Your task to perform on an android device: Open calendar and show me the first week of next month Image 0: 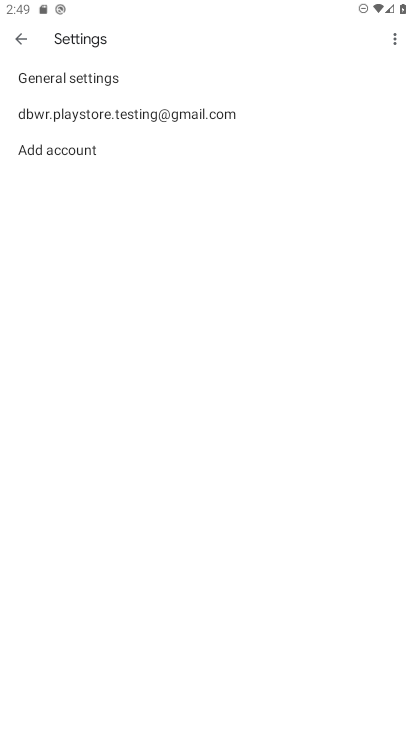
Step 0: press home button
Your task to perform on an android device: Open calendar and show me the first week of next month Image 1: 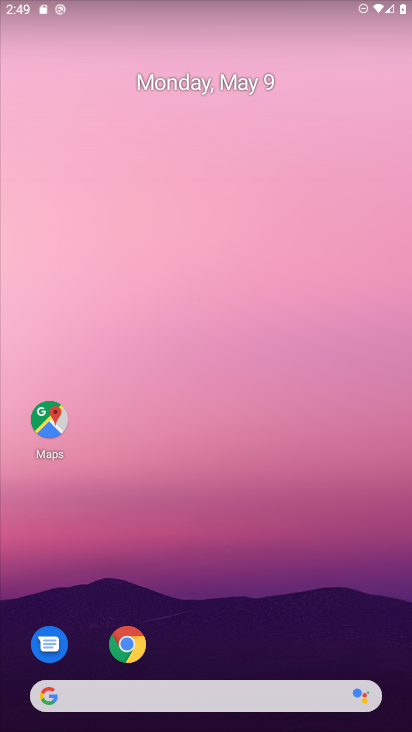
Step 1: drag from (182, 601) to (196, 138)
Your task to perform on an android device: Open calendar and show me the first week of next month Image 2: 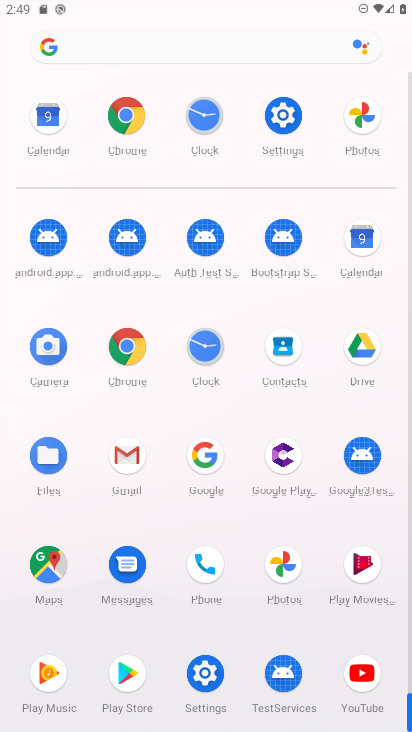
Step 2: click (367, 273)
Your task to perform on an android device: Open calendar and show me the first week of next month Image 3: 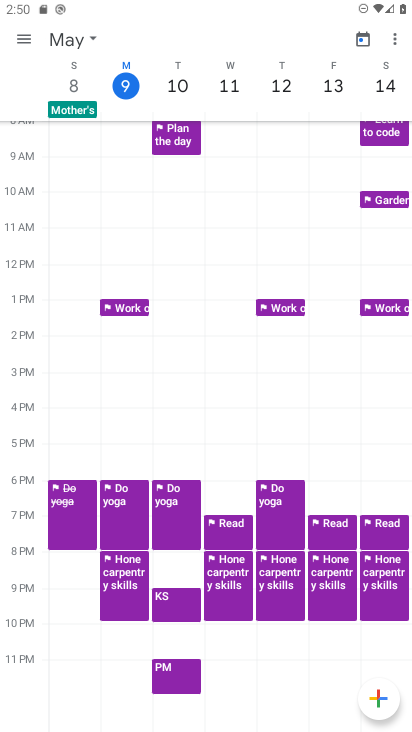
Step 3: click (72, 45)
Your task to perform on an android device: Open calendar and show me the first week of next month Image 4: 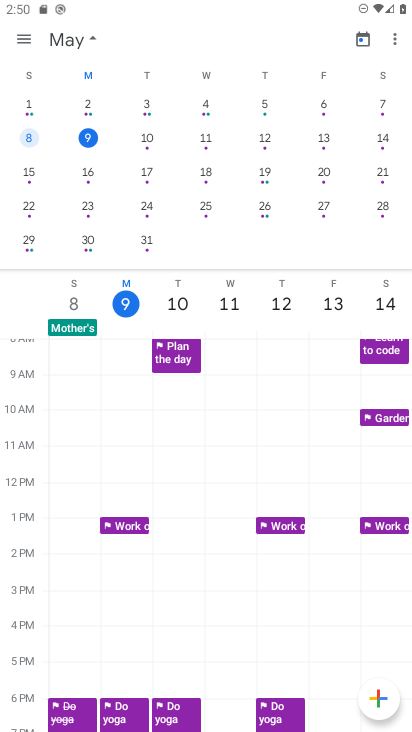
Step 4: drag from (355, 176) to (14, 133)
Your task to perform on an android device: Open calendar and show me the first week of next month Image 5: 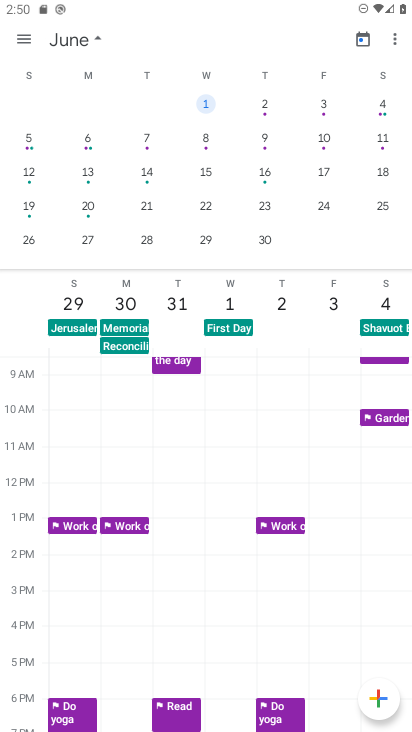
Step 5: click (33, 141)
Your task to perform on an android device: Open calendar and show me the first week of next month Image 6: 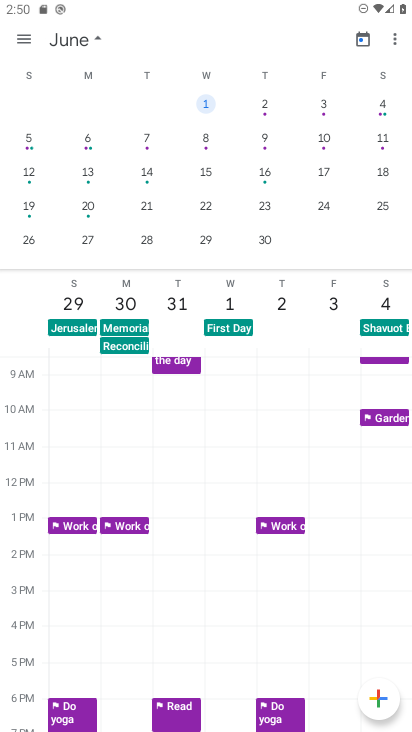
Step 6: click (33, 141)
Your task to perform on an android device: Open calendar and show me the first week of next month Image 7: 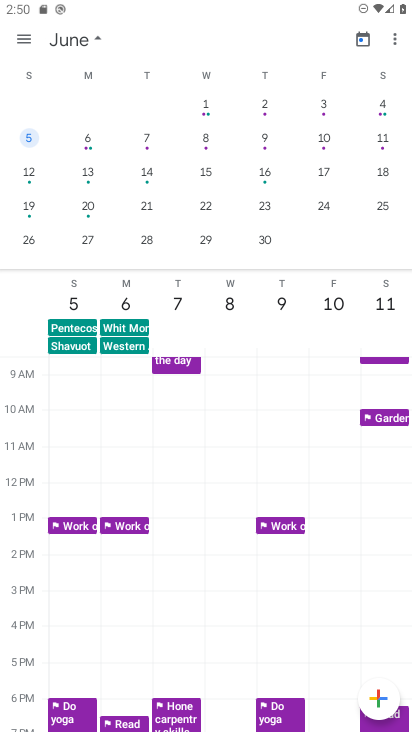
Step 7: task complete